Your task to perform on an android device: turn off data saver in the chrome app Image 0: 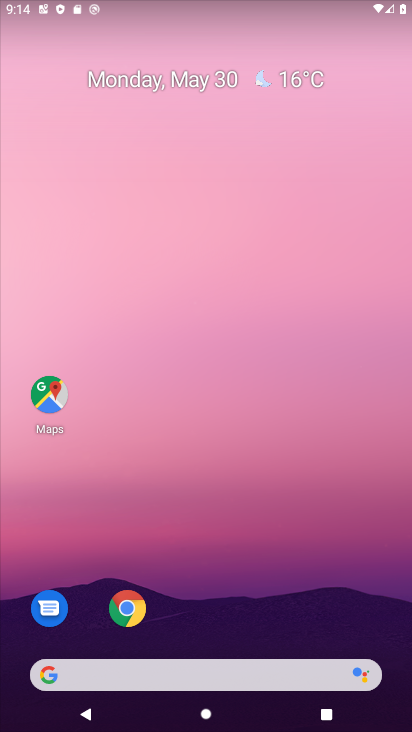
Step 0: click (353, 481)
Your task to perform on an android device: turn off data saver in the chrome app Image 1: 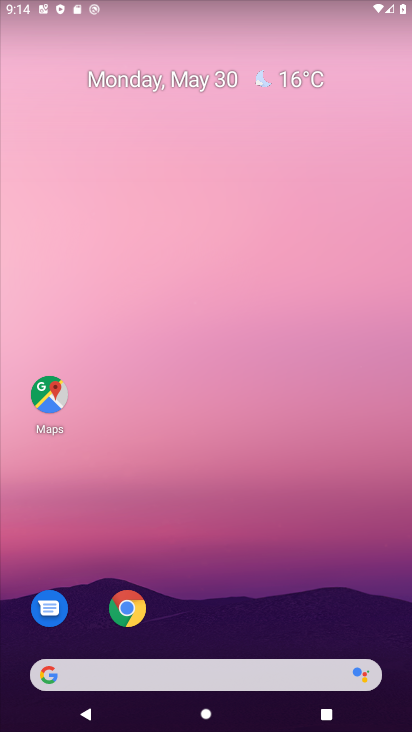
Step 1: click (122, 610)
Your task to perform on an android device: turn off data saver in the chrome app Image 2: 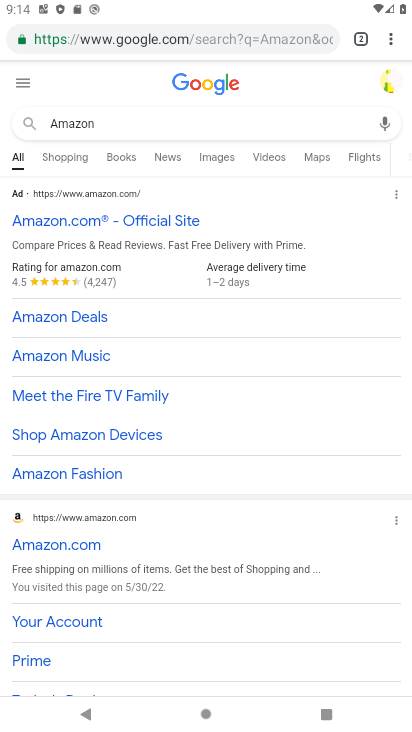
Step 2: click (390, 45)
Your task to perform on an android device: turn off data saver in the chrome app Image 3: 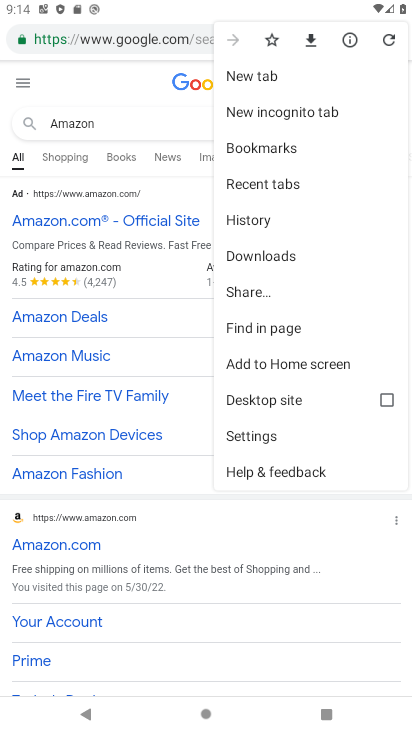
Step 3: click (249, 418)
Your task to perform on an android device: turn off data saver in the chrome app Image 4: 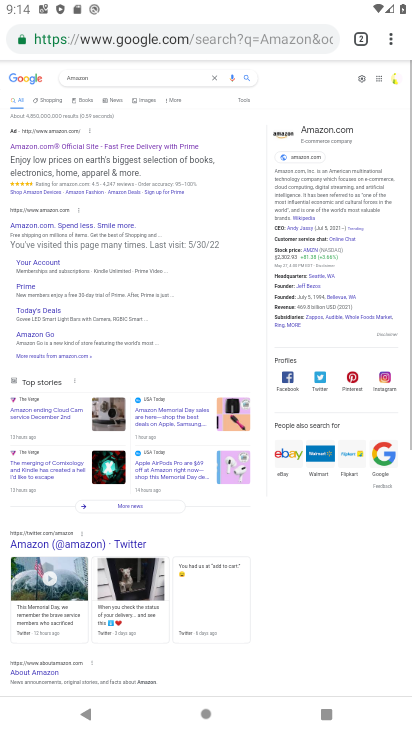
Step 4: click (390, 38)
Your task to perform on an android device: turn off data saver in the chrome app Image 5: 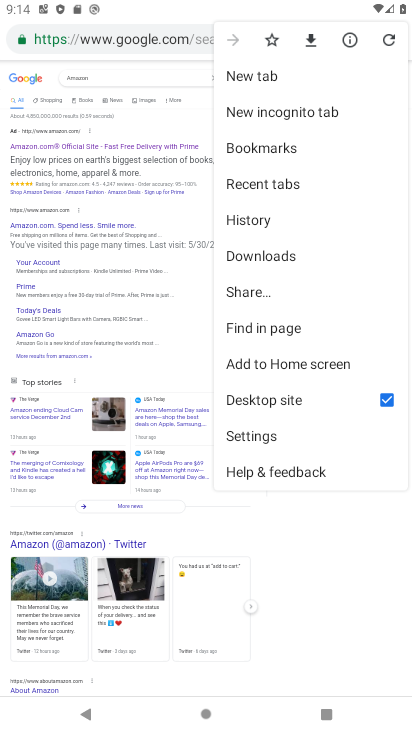
Step 5: click (250, 433)
Your task to perform on an android device: turn off data saver in the chrome app Image 6: 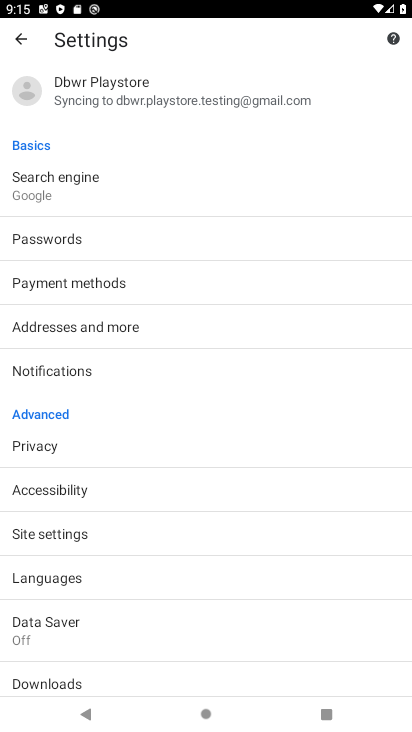
Step 6: click (49, 628)
Your task to perform on an android device: turn off data saver in the chrome app Image 7: 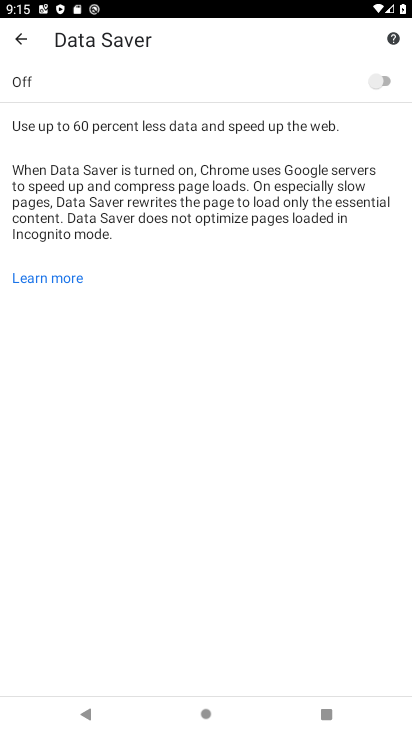
Step 7: task complete